Your task to perform on an android device: move a message to another label in the gmail app Image 0: 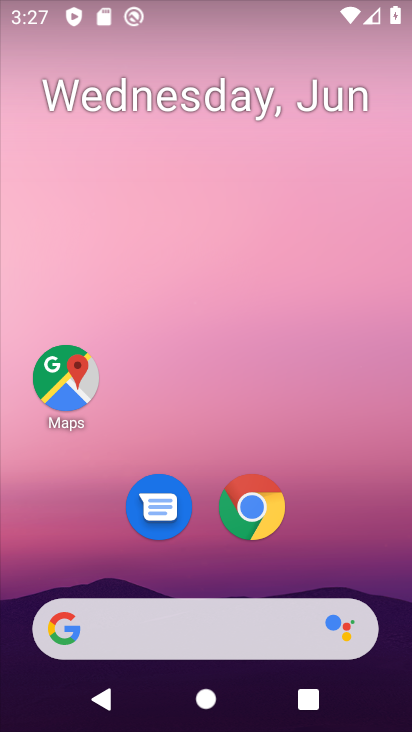
Step 0: drag from (337, 543) to (253, 71)
Your task to perform on an android device: move a message to another label in the gmail app Image 1: 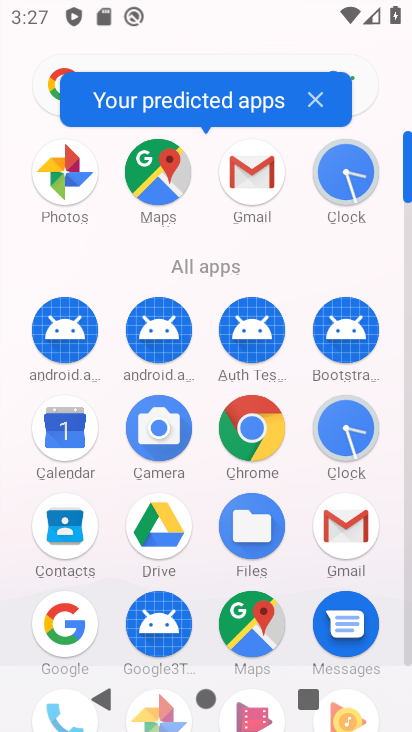
Step 1: click (256, 170)
Your task to perform on an android device: move a message to another label in the gmail app Image 2: 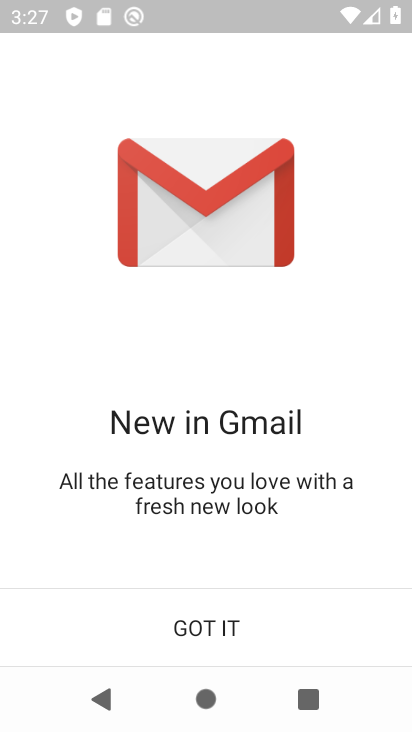
Step 2: click (221, 616)
Your task to perform on an android device: move a message to another label in the gmail app Image 3: 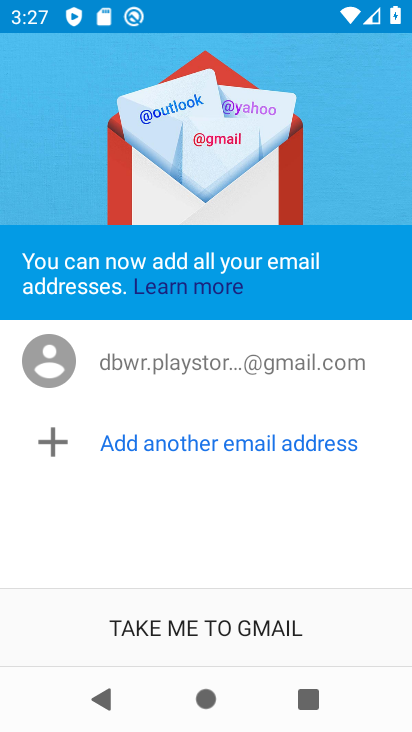
Step 3: click (221, 616)
Your task to perform on an android device: move a message to another label in the gmail app Image 4: 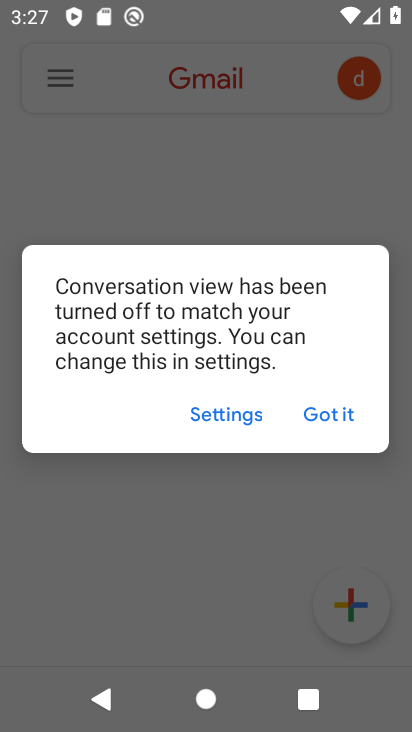
Step 4: click (331, 419)
Your task to perform on an android device: move a message to another label in the gmail app Image 5: 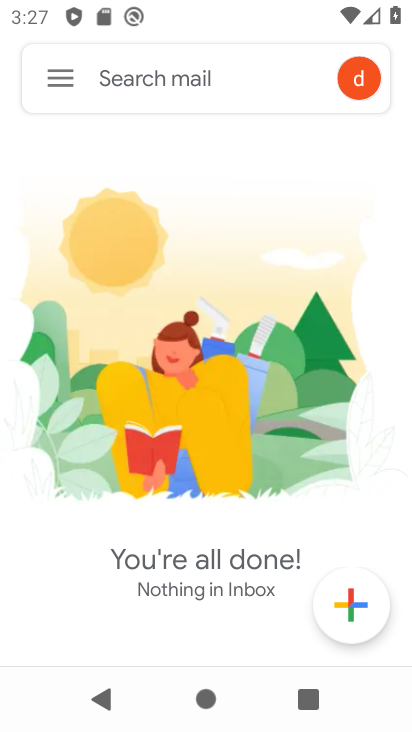
Step 5: task complete